Your task to perform on an android device: Open ESPN.com Image 0: 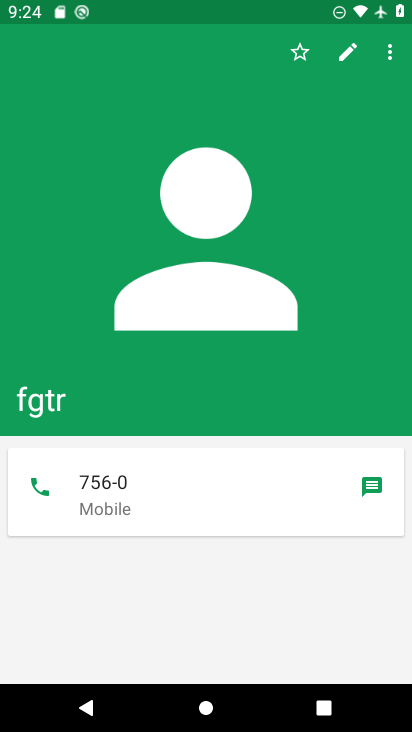
Step 0: press home button
Your task to perform on an android device: Open ESPN.com Image 1: 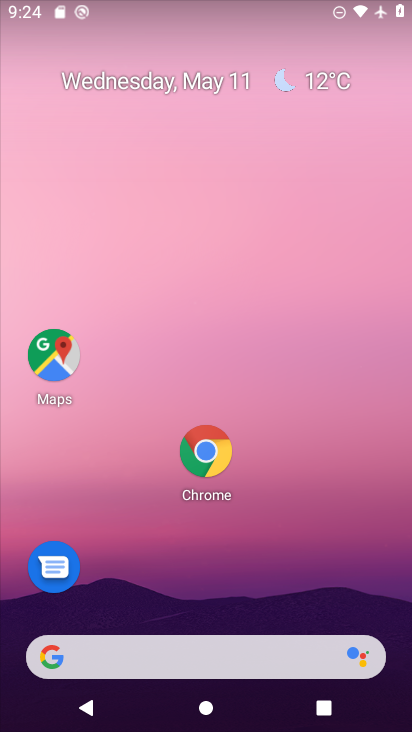
Step 1: click (211, 455)
Your task to perform on an android device: Open ESPN.com Image 2: 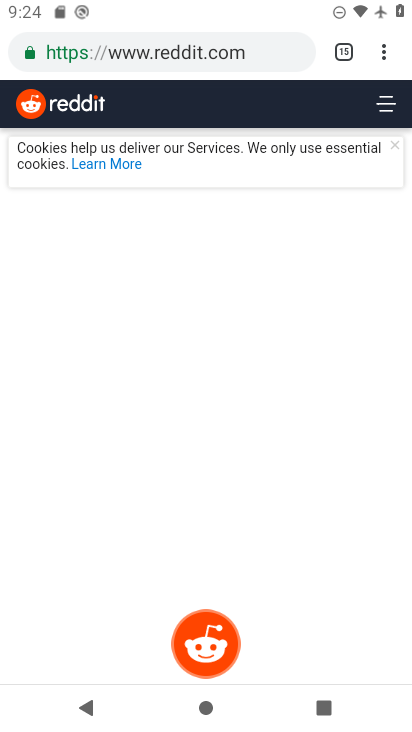
Step 2: drag from (383, 56) to (312, 109)
Your task to perform on an android device: Open ESPN.com Image 3: 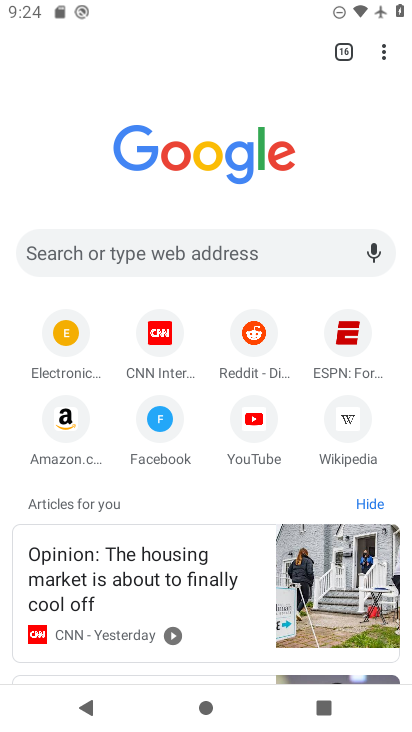
Step 3: click (348, 332)
Your task to perform on an android device: Open ESPN.com Image 4: 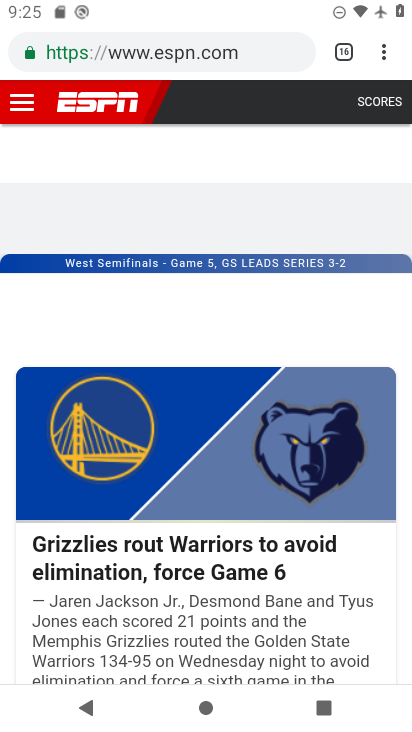
Step 4: task complete